Your task to perform on an android device: When is my next appointment? Image 0: 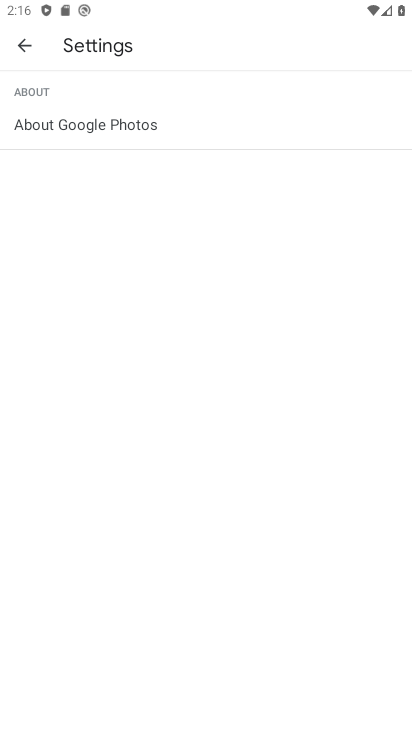
Step 0: press home button
Your task to perform on an android device: When is my next appointment? Image 1: 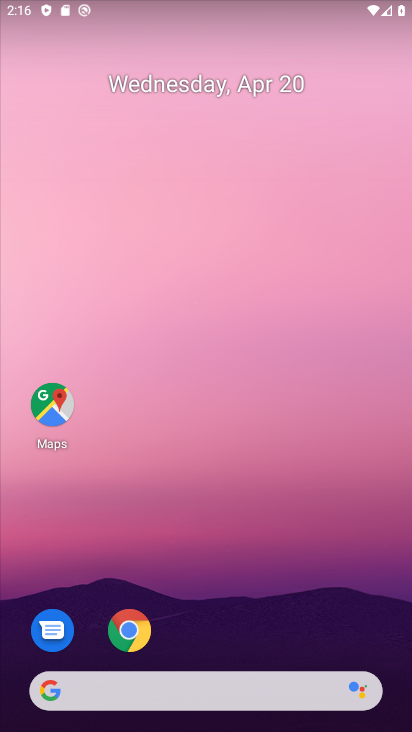
Step 1: drag from (185, 616) to (93, 76)
Your task to perform on an android device: When is my next appointment? Image 2: 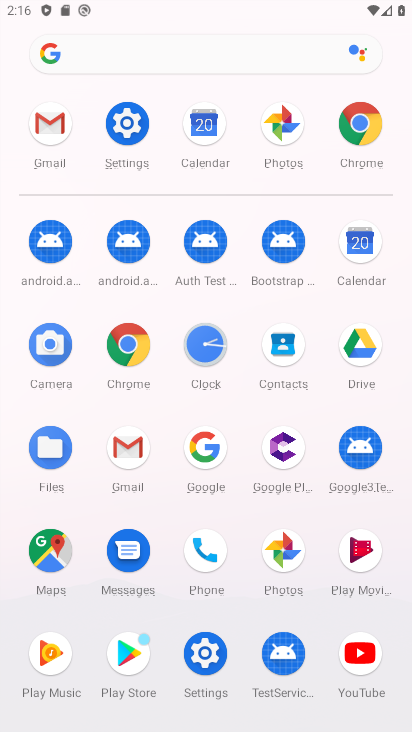
Step 2: click (355, 232)
Your task to perform on an android device: When is my next appointment? Image 3: 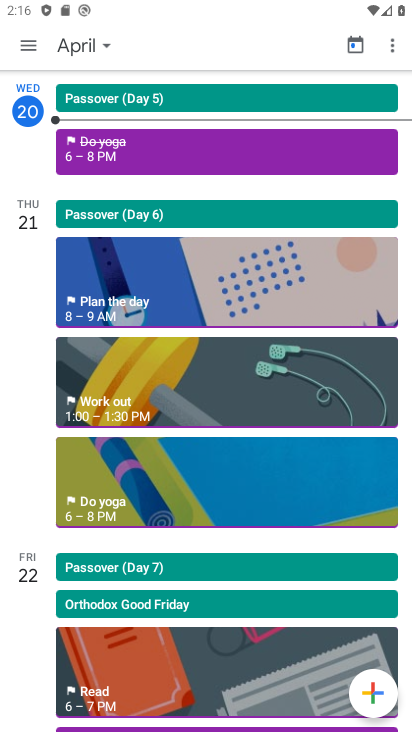
Step 3: click (105, 167)
Your task to perform on an android device: When is my next appointment? Image 4: 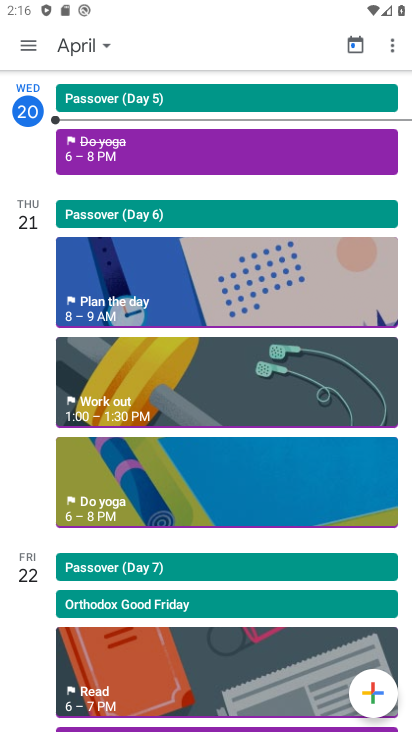
Step 4: task complete